Your task to perform on an android device: turn off airplane mode Image 0: 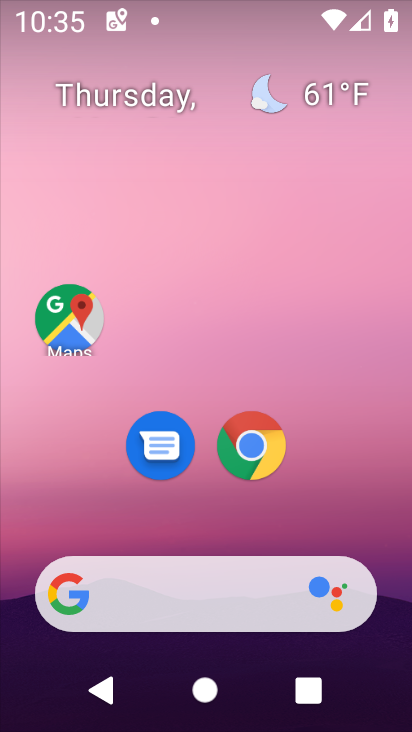
Step 0: drag from (189, 531) to (225, 16)
Your task to perform on an android device: turn off airplane mode Image 1: 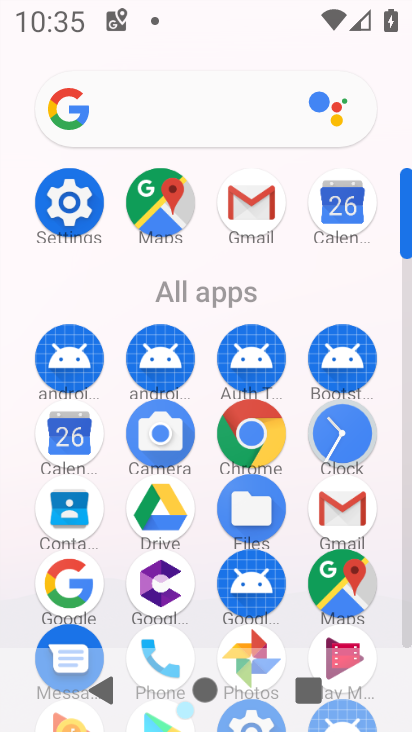
Step 1: click (71, 200)
Your task to perform on an android device: turn off airplane mode Image 2: 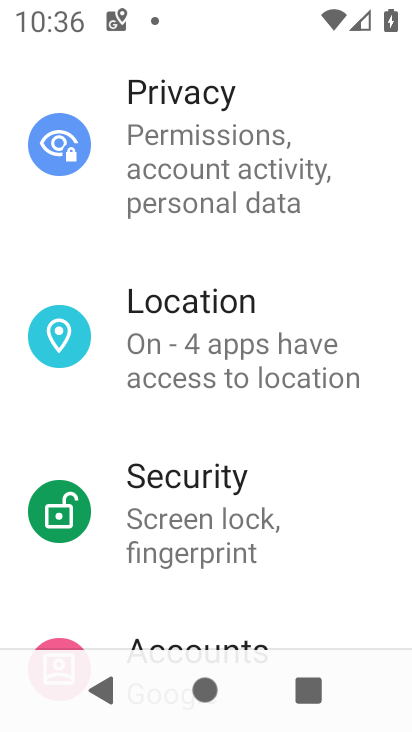
Step 2: drag from (197, 204) to (165, 540)
Your task to perform on an android device: turn off airplane mode Image 3: 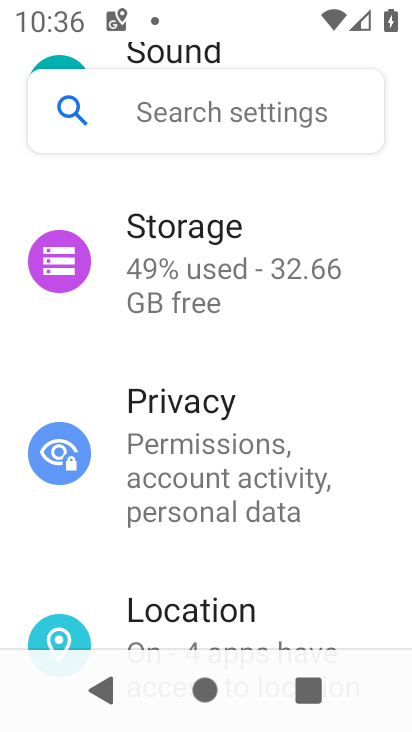
Step 3: drag from (205, 242) to (185, 672)
Your task to perform on an android device: turn off airplane mode Image 4: 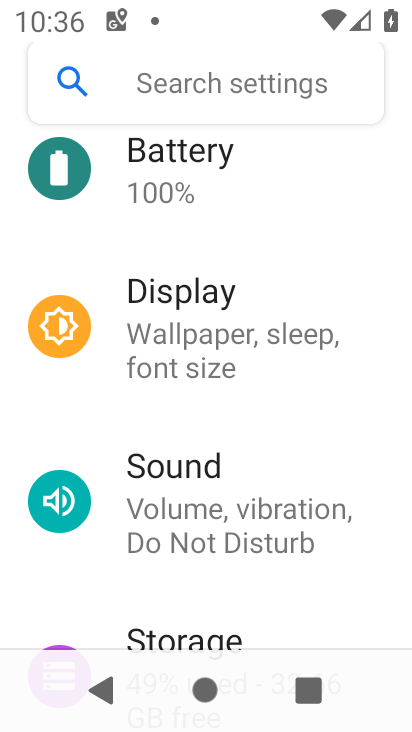
Step 4: drag from (243, 197) to (235, 715)
Your task to perform on an android device: turn off airplane mode Image 5: 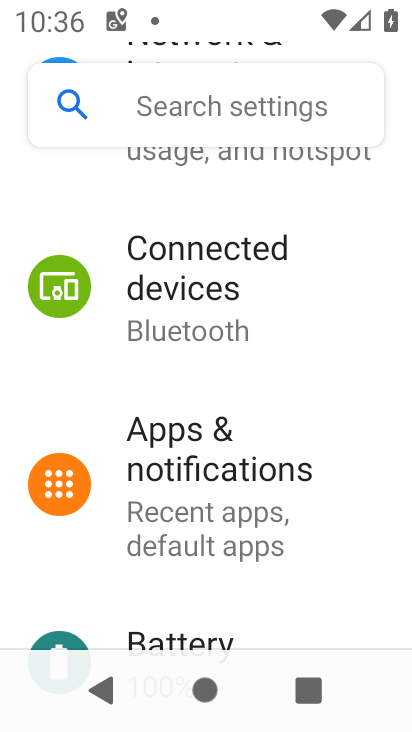
Step 5: drag from (216, 275) to (207, 633)
Your task to perform on an android device: turn off airplane mode Image 6: 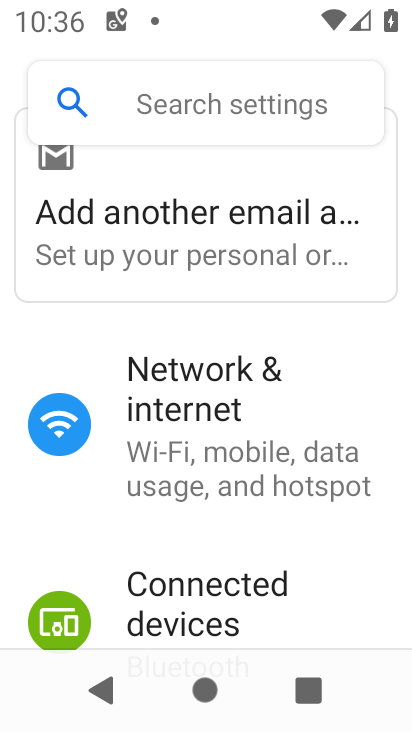
Step 6: click (182, 388)
Your task to perform on an android device: turn off airplane mode Image 7: 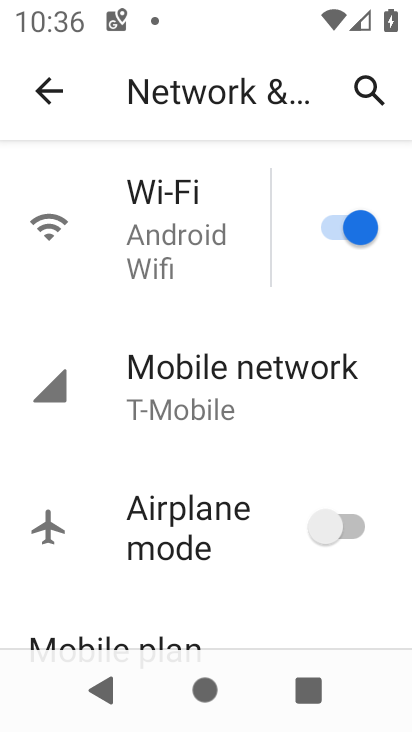
Step 7: task complete